Your task to perform on an android device: turn on bluetooth scan Image 0: 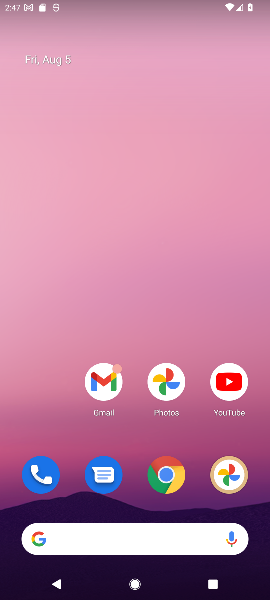
Step 0: drag from (264, 574) to (224, 144)
Your task to perform on an android device: turn on bluetooth scan Image 1: 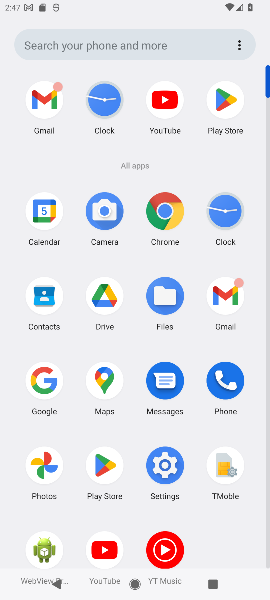
Step 1: click (166, 460)
Your task to perform on an android device: turn on bluetooth scan Image 2: 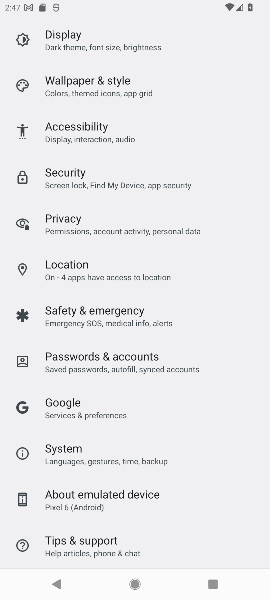
Step 2: click (78, 268)
Your task to perform on an android device: turn on bluetooth scan Image 3: 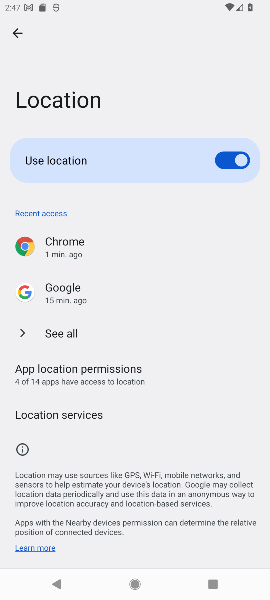
Step 3: task complete